Your task to perform on an android device: Open wifi settings Image 0: 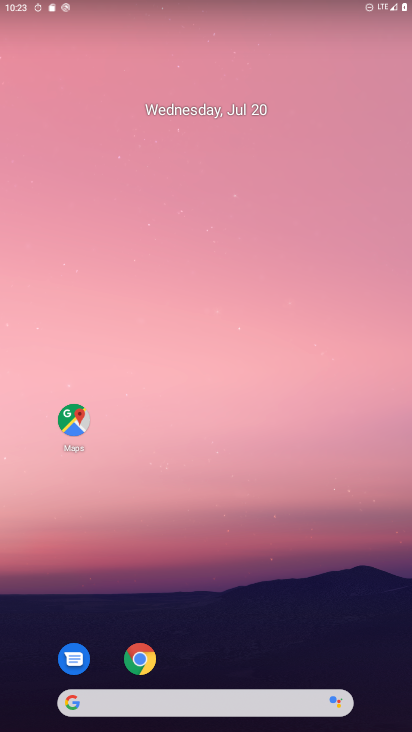
Step 0: drag from (271, 605) to (242, 157)
Your task to perform on an android device: Open wifi settings Image 1: 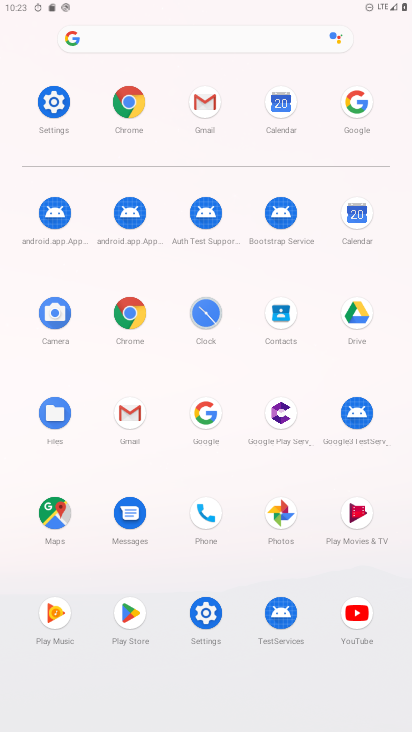
Step 1: click (51, 92)
Your task to perform on an android device: Open wifi settings Image 2: 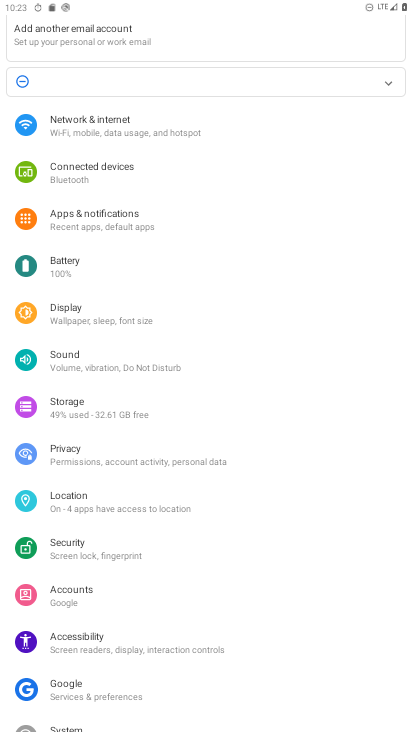
Step 2: click (79, 137)
Your task to perform on an android device: Open wifi settings Image 3: 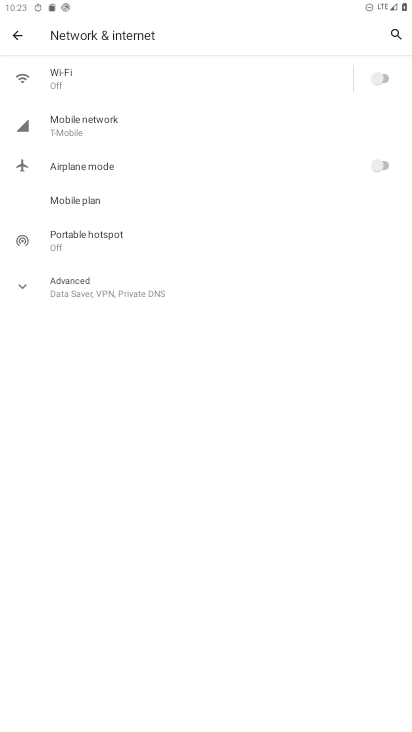
Step 3: click (159, 81)
Your task to perform on an android device: Open wifi settings Image 4: 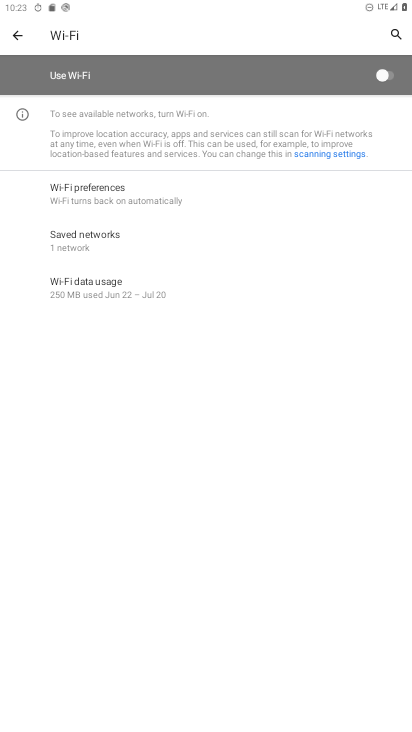
Step 4: click (383, 82)
Your task to perform on an android device: Open wifi settings Image 5: 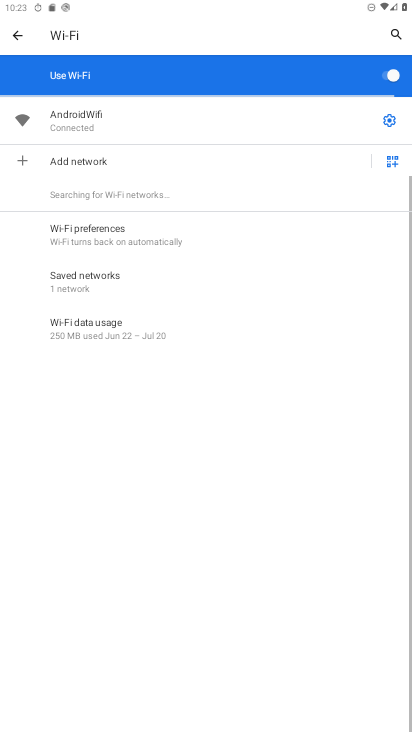
Step 5: click (391, 119)
Your task to perform on an android device: Open wifi settings Image 6: 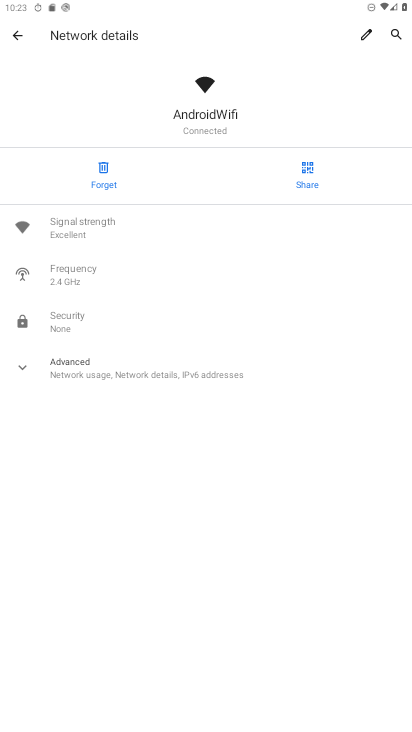
Step 6: task complete